Your task to perform on an android device: open app "Firefox Browser" Image 0: 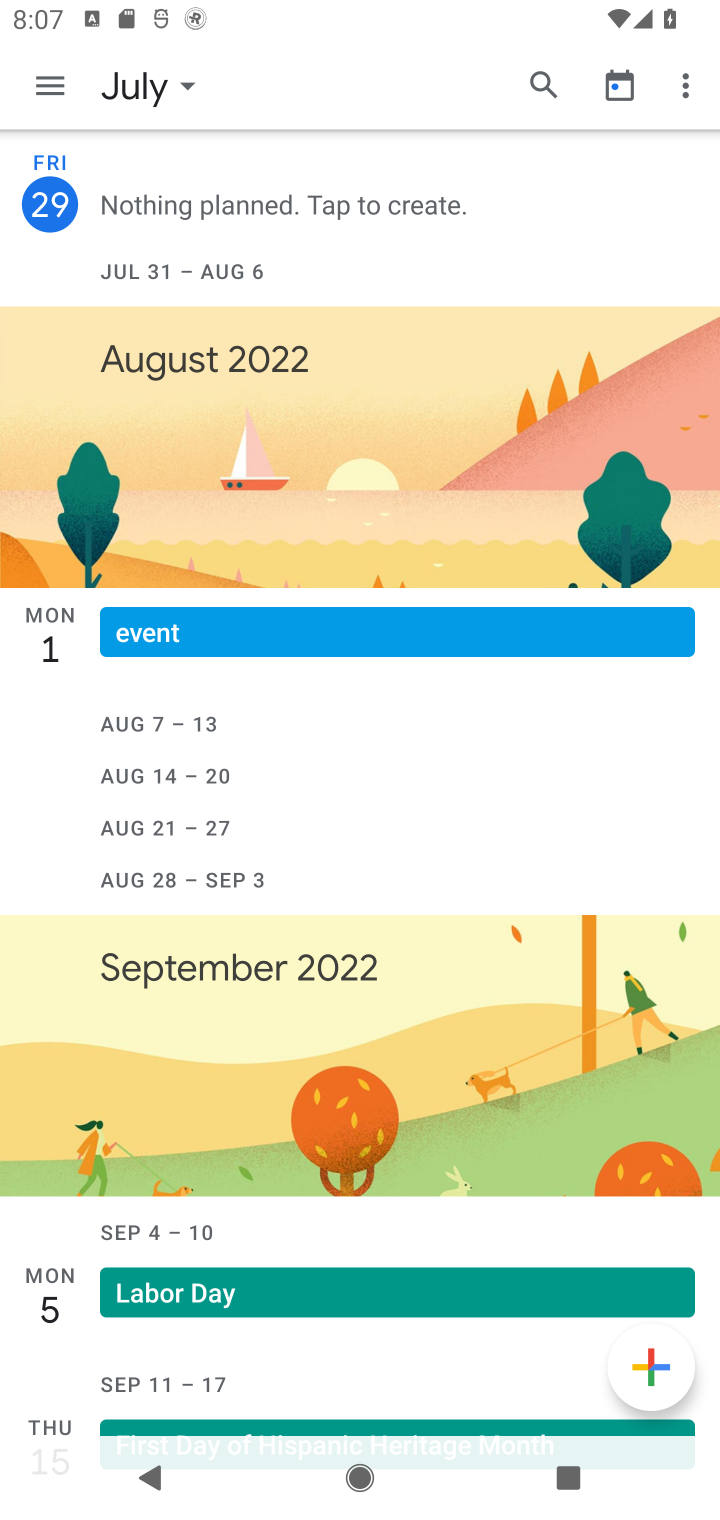
Step 0: press home button
Your task to perform on an android device: open app "Firefox Browser" Image 1: 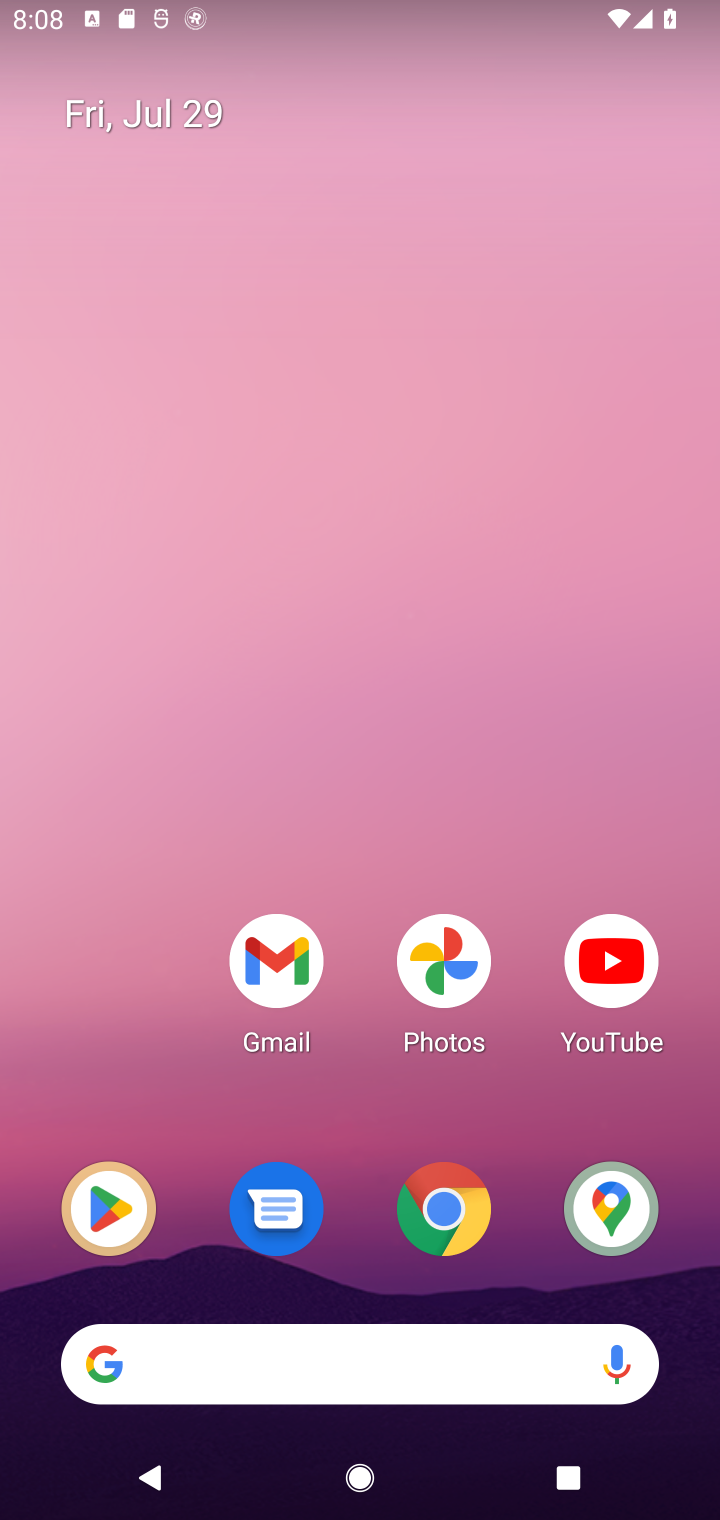
Step 1: click (116, 1223)
Your task to perform on an android device: open app "Firefox Browser" Image 2: 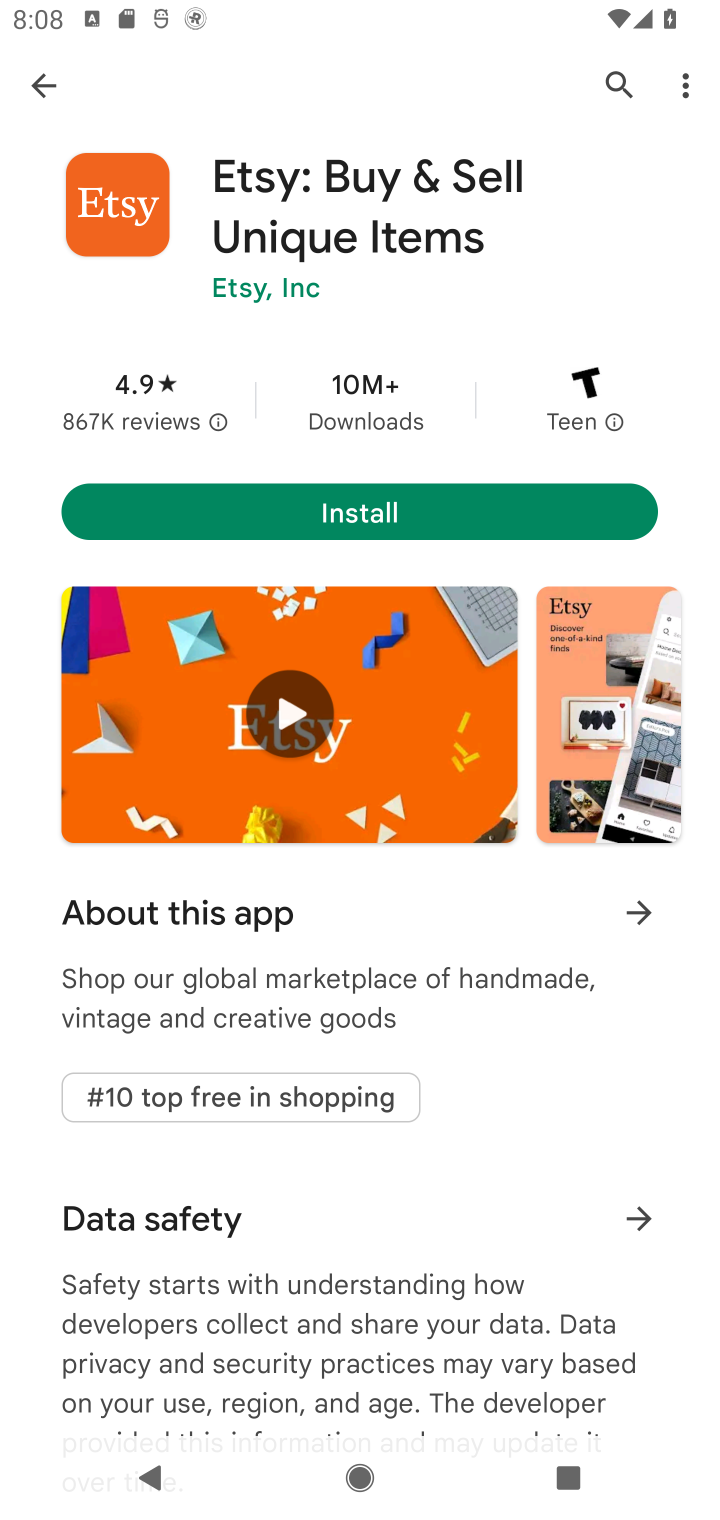
Step 2: click (623, 79)
Your task to perform on an android device: open app "Firefox Browser" Image 3: 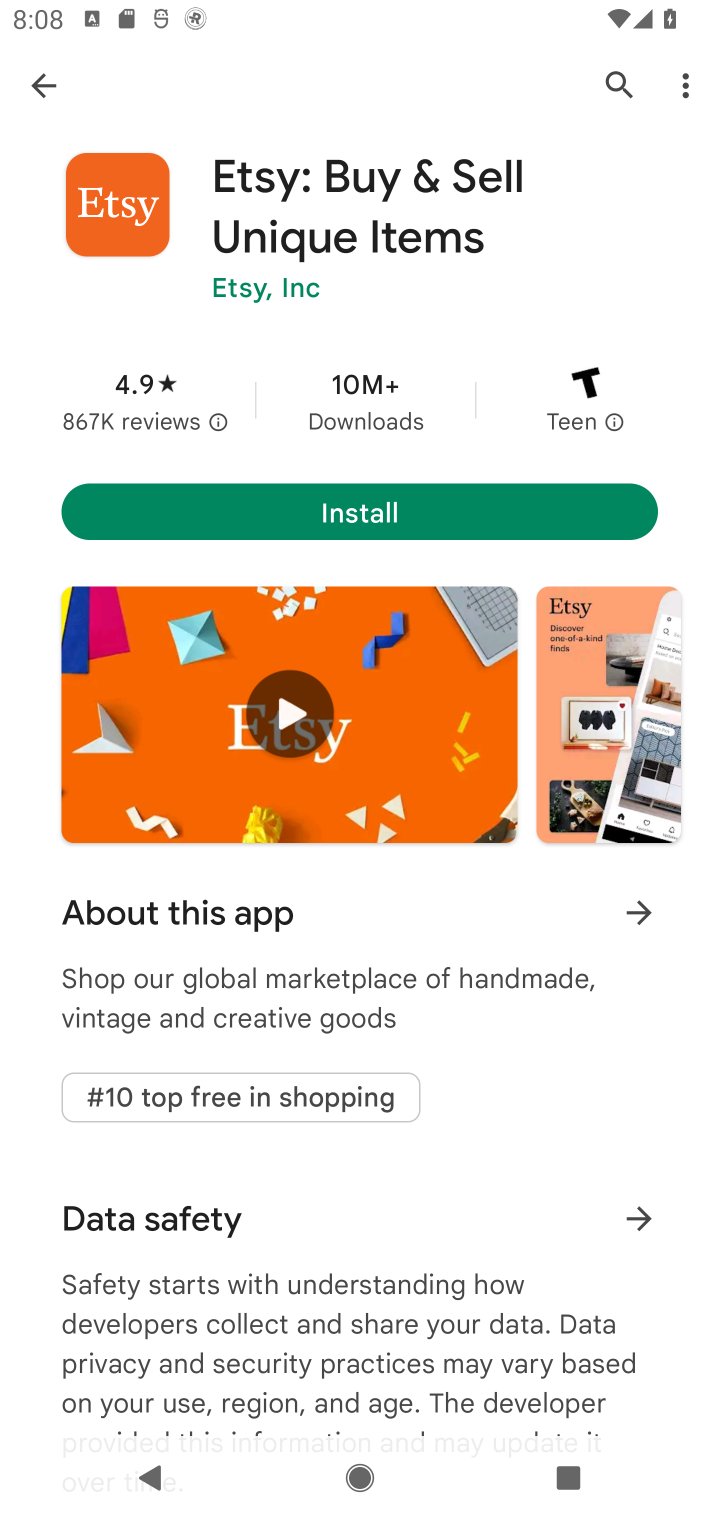
Step 3: click (621, 82)
Your task to perform on an android device: open app "Firefox Browser" Image 4: 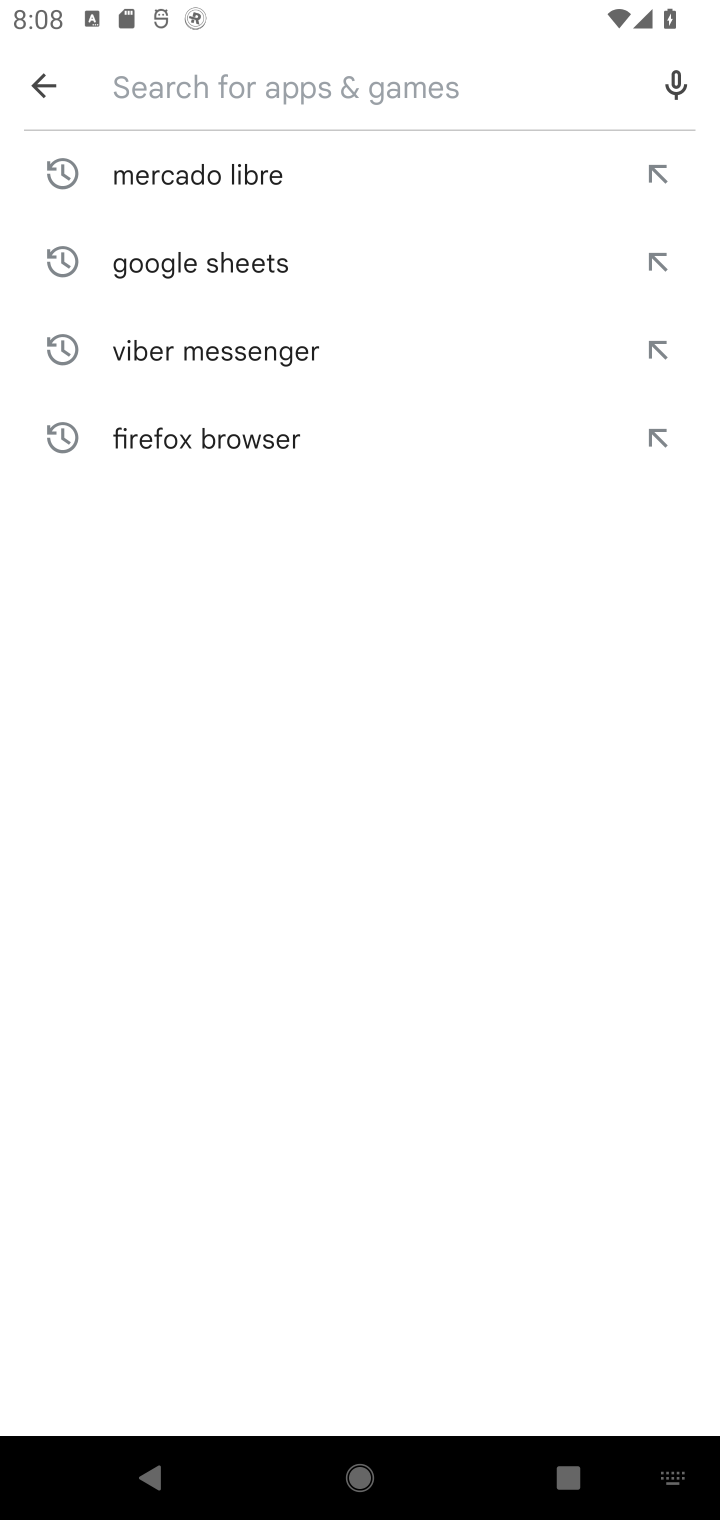
Step 4: click (185, 101)
Your task to perform on an android device: open app "Firefox Browser" Image 5: 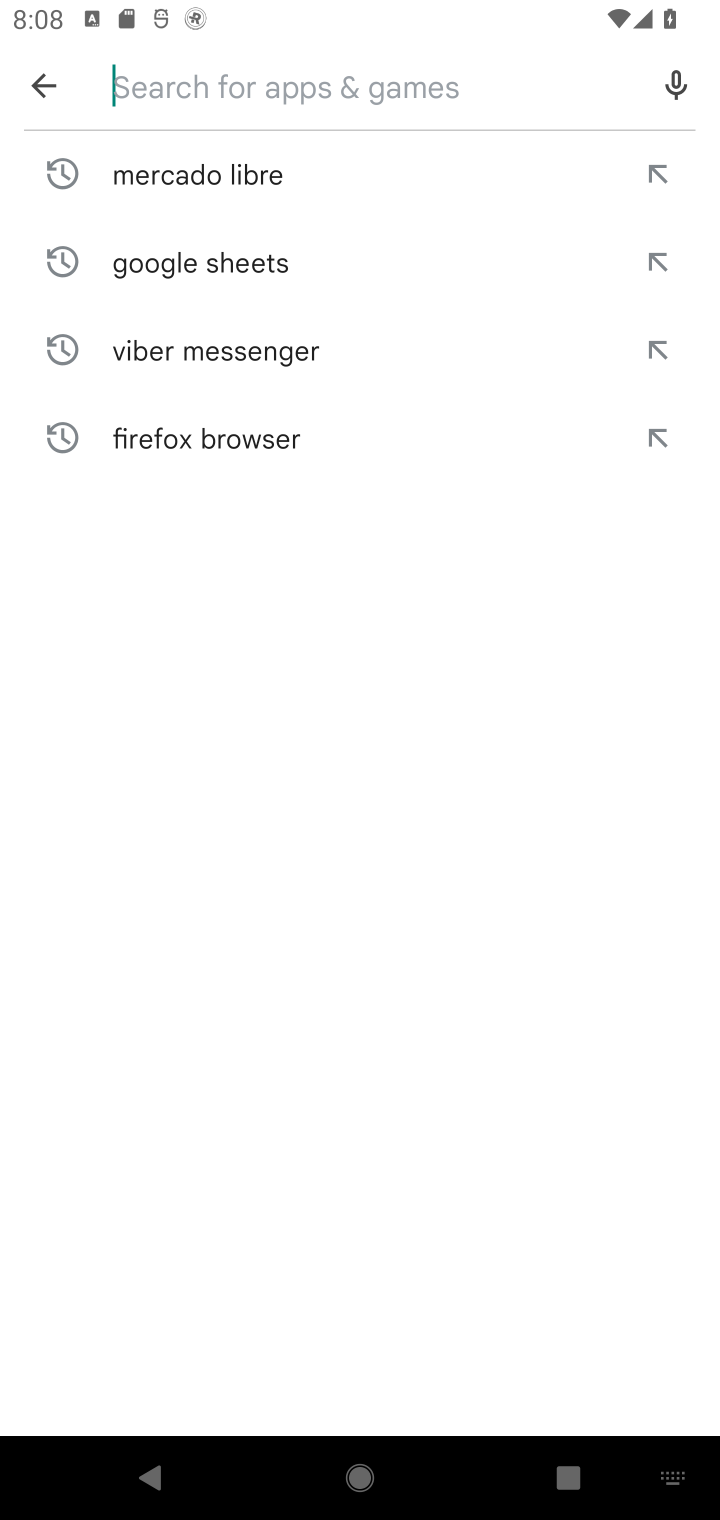
Step 5: type "Firefox Browser"
Your task to perform on an android device: open app "Firefox Browser" Image 6: 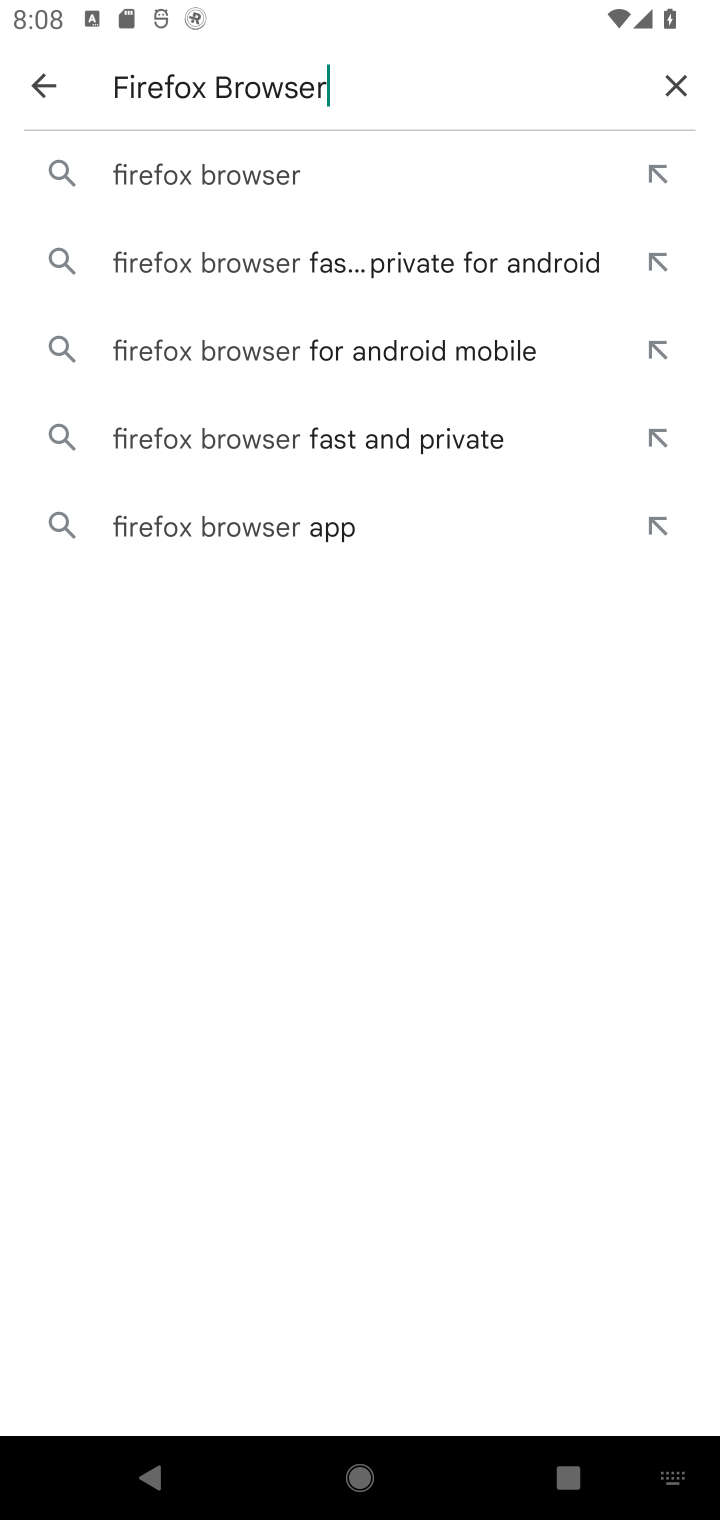
Step 6: click (218, 188)
Your task to perform on an android device: open app "Firefox Browser" Image 7: 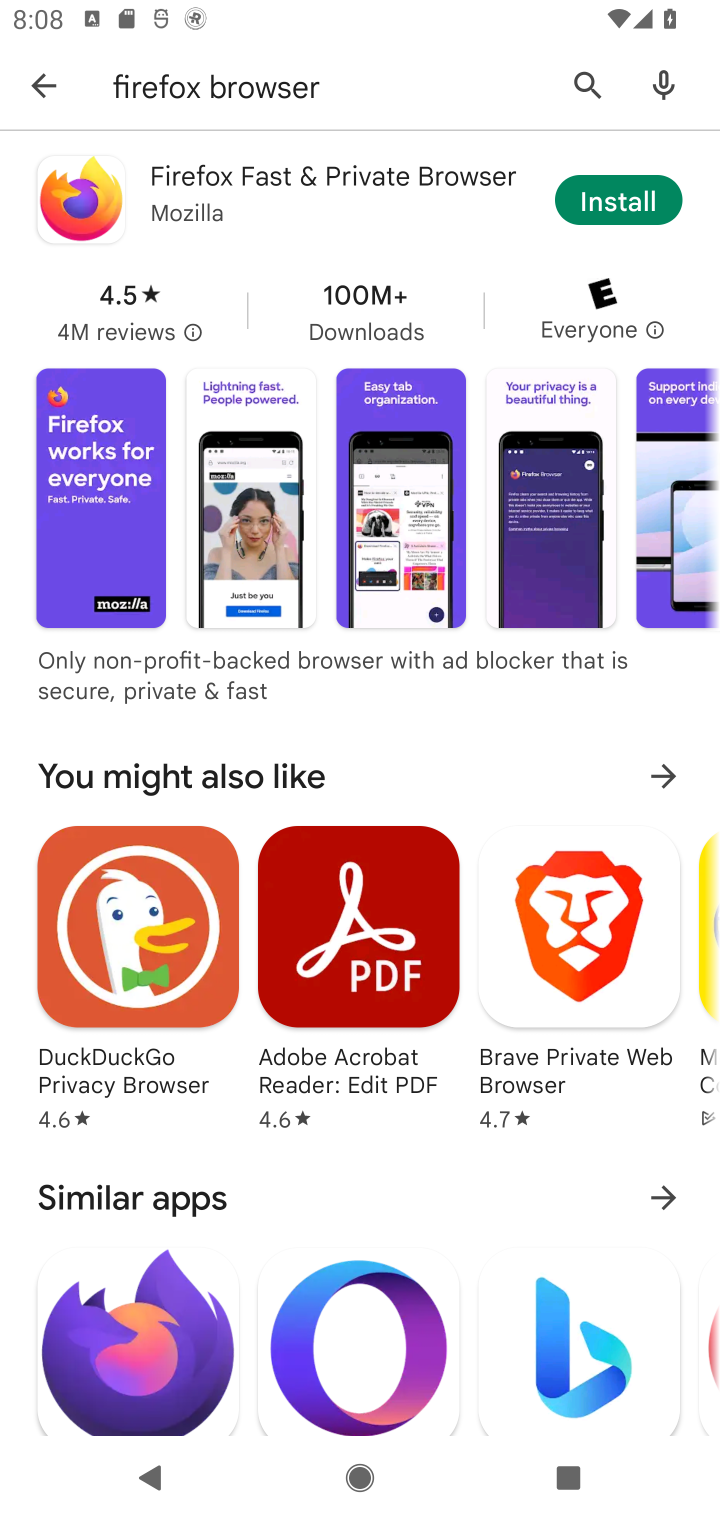
Step 7: task complete